Your task to perform on an android device: delete location history Image 0: 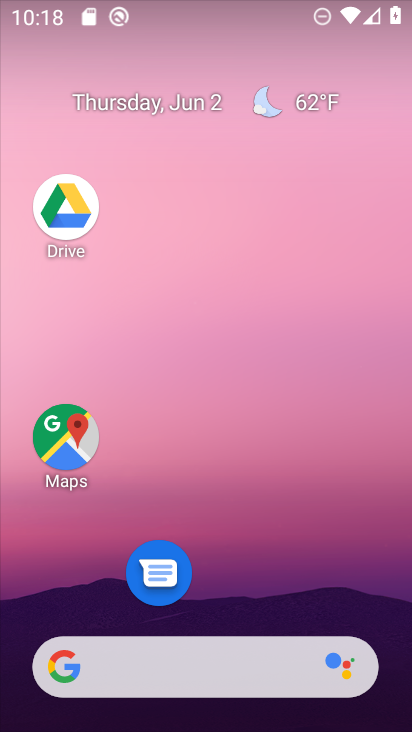
Step 0: drag from (193, 618) to (204, 1)
Your task to perform on an android device: delete location history Image 1: 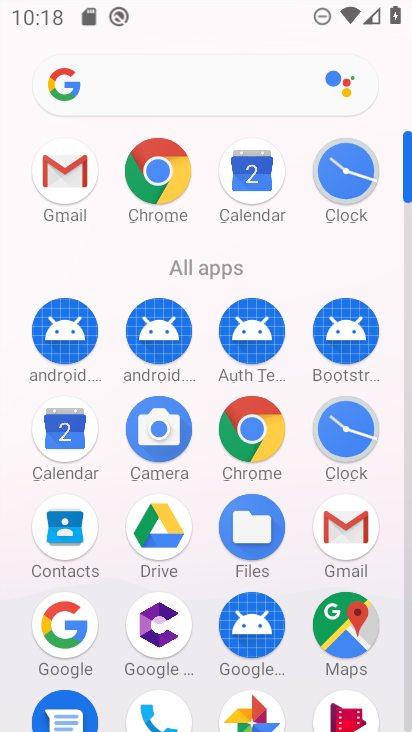
Step 1: click (370, 635)
Your task to perform on an android device: delete location history Image 2: 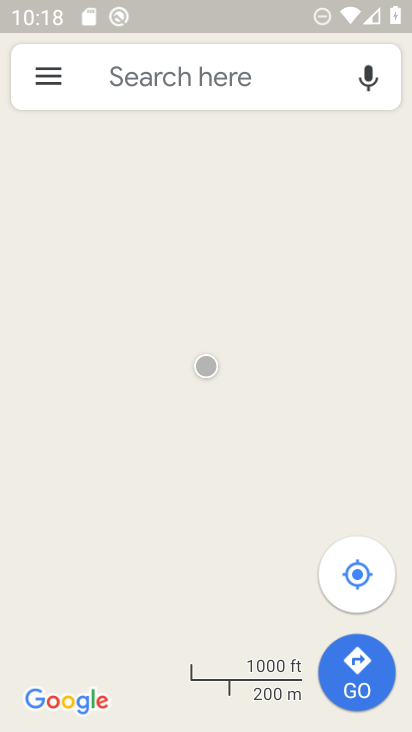
Step 2: click (57, 84)
Your task to perform on an android device: delete location history Image 3: 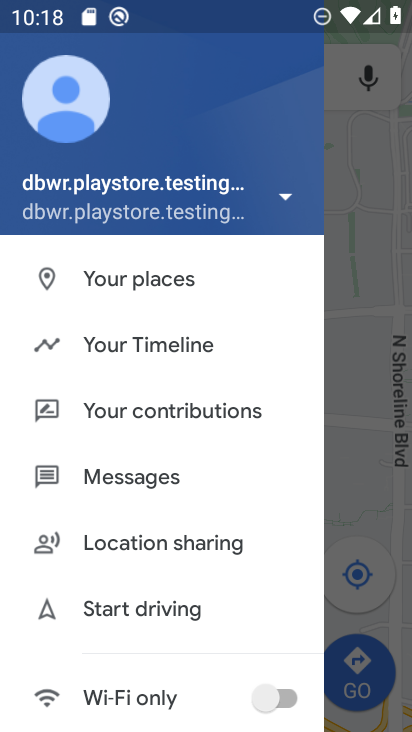
Step 3: click (79, 351)
Your task to perform on an android device: delete location history Image 4: 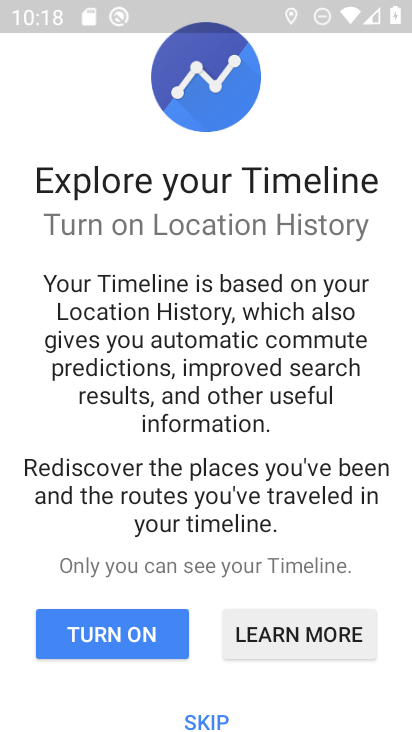
Step 4: click (206, 711)
Your task to perform on an android device: delete location history Image 5: 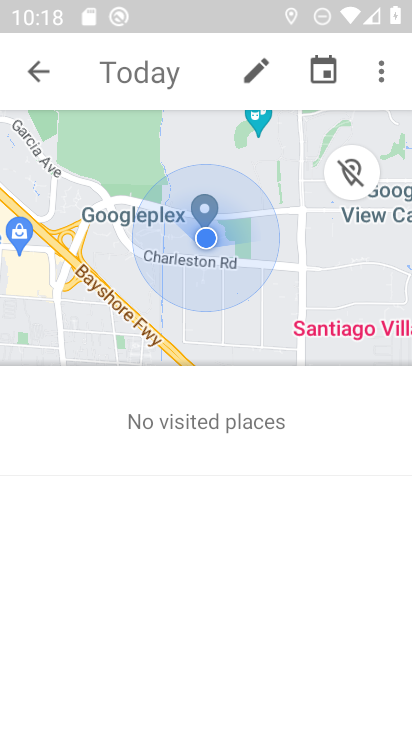
Step 5: click (374, 71)
Your task to perform on an android device: delete location history Image 6: 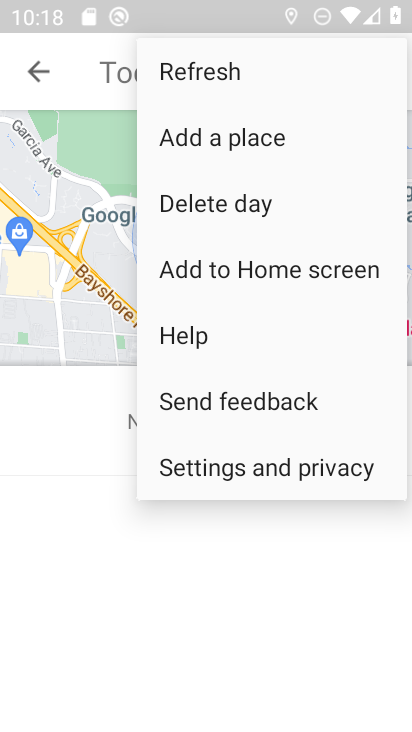
Step 6: click (248, 467)
Your task to perform on an android device: delete location history Image 7: 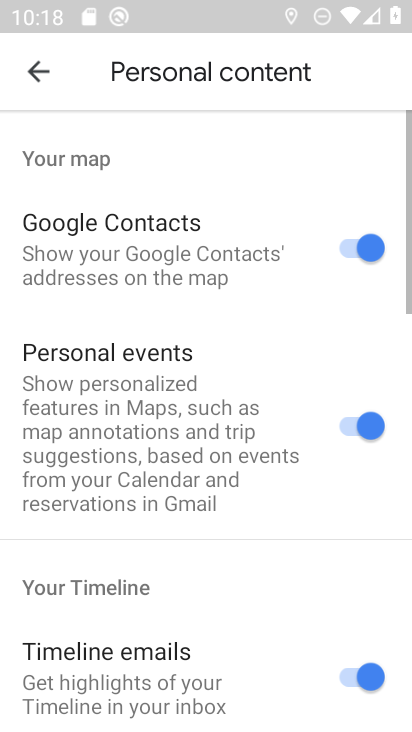
Step 7: drag from (248, 464) to (209, 29)
Your task to perform on an android device: delete location history Image 8: 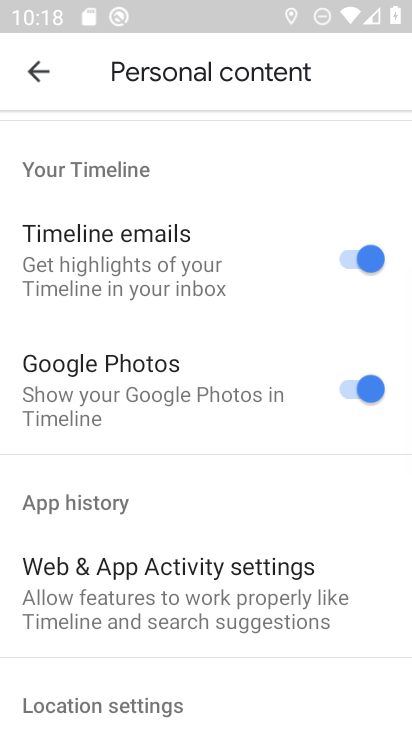
Step 8: drag from (145, 665) to (126, 277)
Your task to perform on an android device: delete location history Image 9: 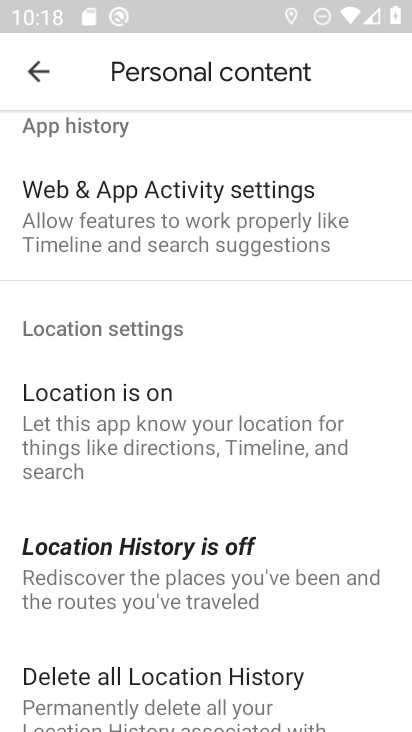
Step 9: click (175, 674)
Your task to perform on an android device: delete location history Image 10: 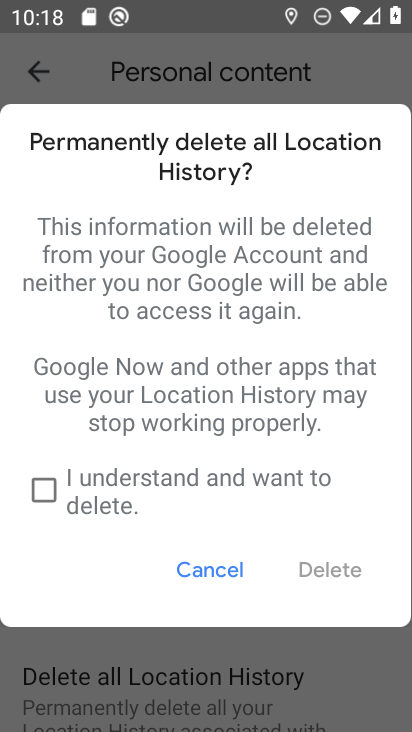
Step 10: click (69, 490)
Your task to perform on an android device: delete location history Image 11: 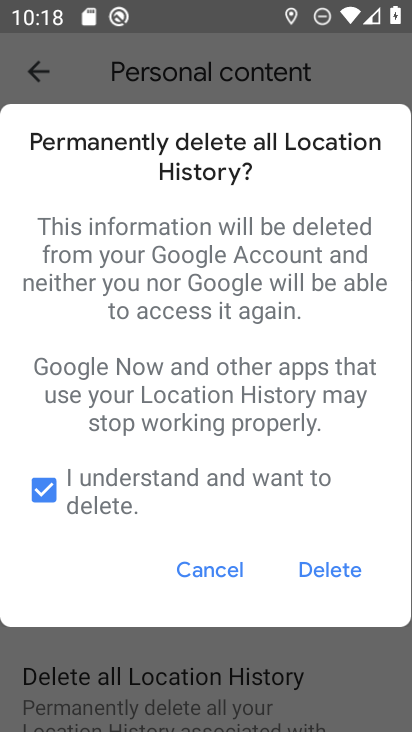
Step 11: click (352, 577)
Your task to perform on an android device: delete location history Image 12: 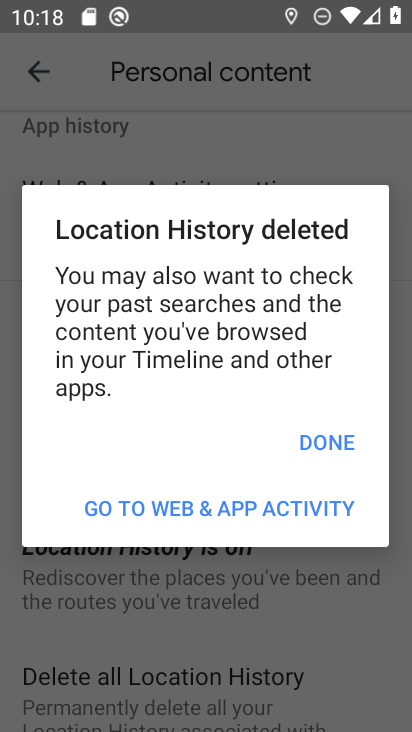
Step 12: click (307, 449)
Your task to perform on an android device: delete location history Image 13: 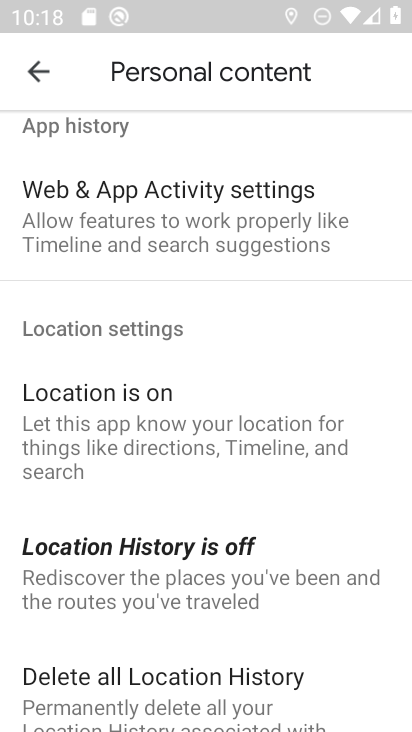
Step 13: task complete